Your task to perform on an android device: Open accessibility settings Image 0: 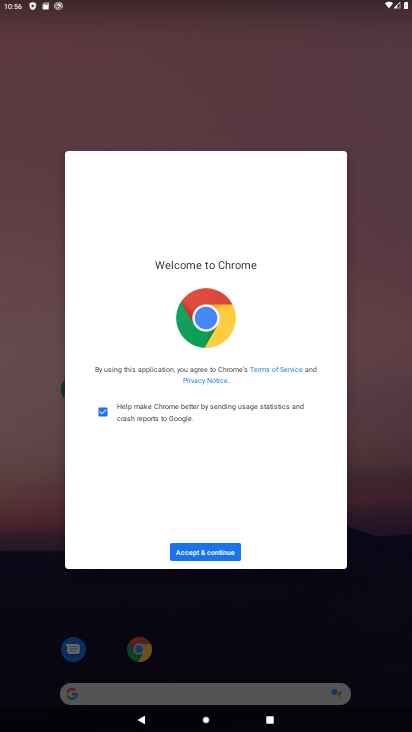
Step 0: press home button
Your task to perform on an android device: Open accessibility settings Image 1: 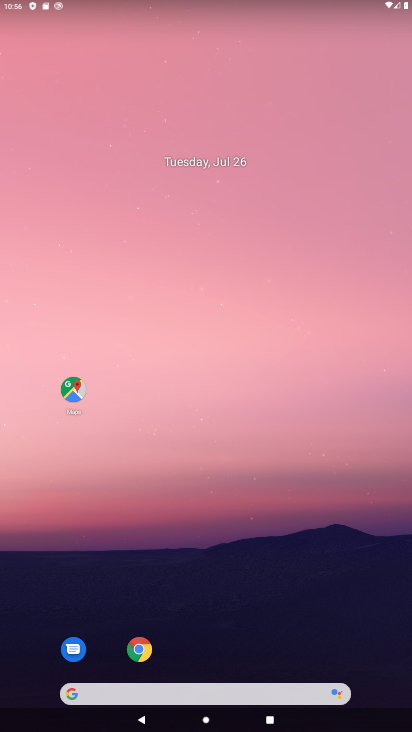
Step 1: drag from (213, 635) to (320, 0)
Your task to perform on an android device: Open accessibility settings Image 2: 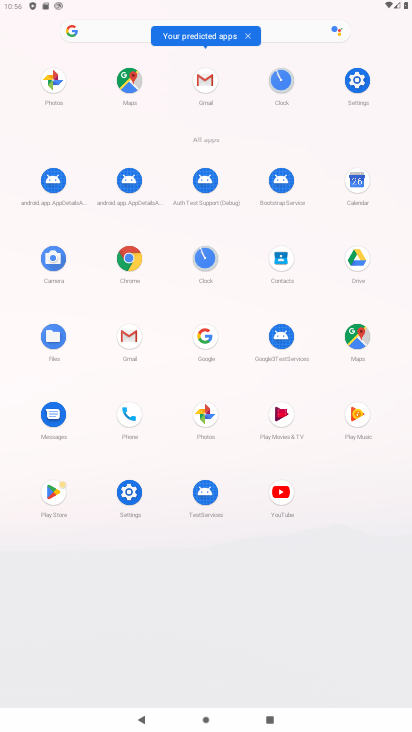
Step 2: click (138, 505)
Your task to perform on an android device: Open accessibility settings Image 3: 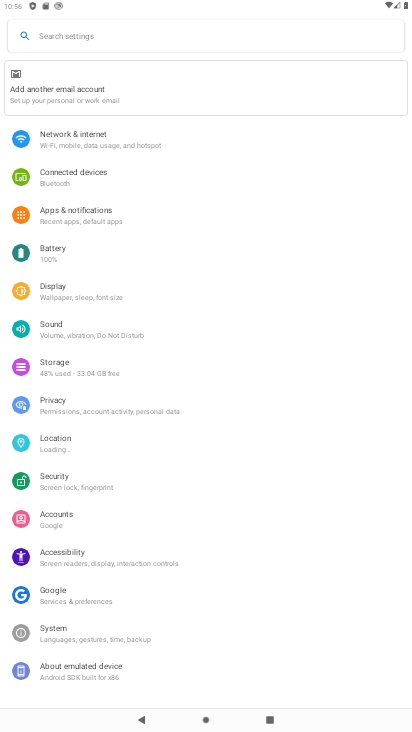
Step 3: click (96, 561)
Your task to perform on an android device: Open accessibility settings Image 4: 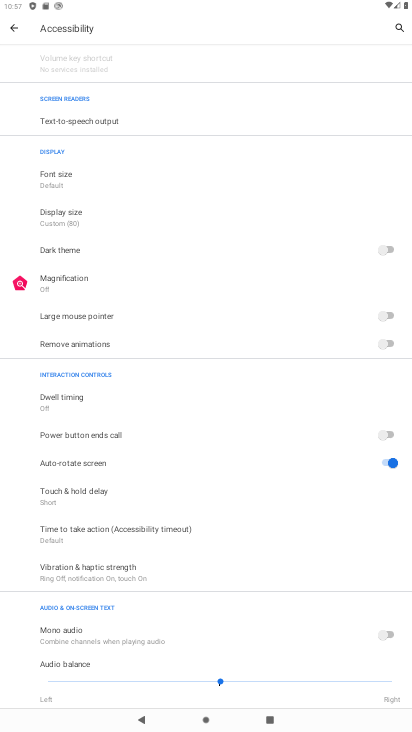
Step 4: task complete